Your task to perform on an android device: snooze an email in the gmail app Image 0: 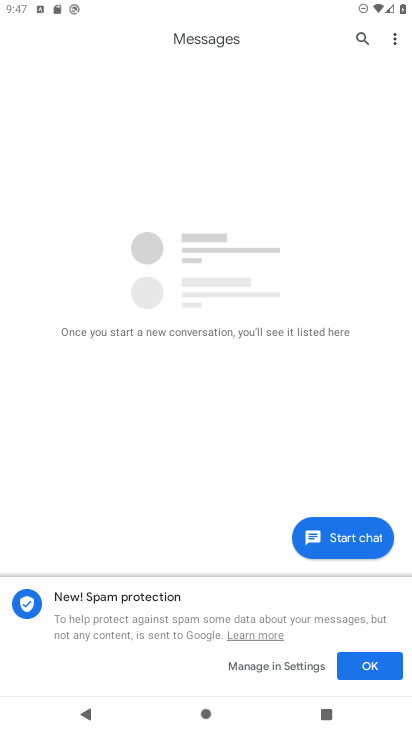
Step 0: press home button
Your task to perform on an android device: snooze an email in the gmail app Image 1: 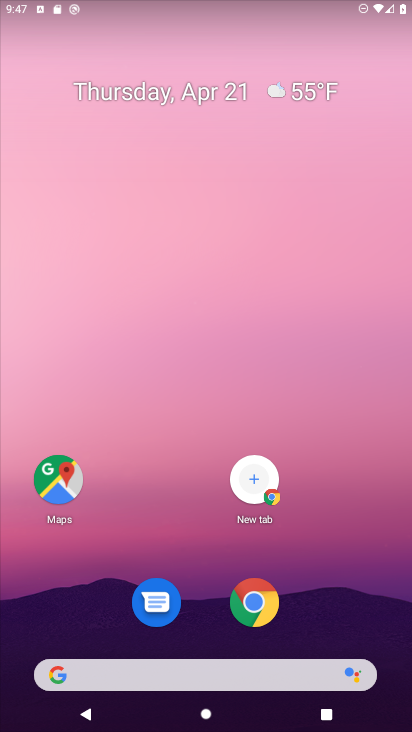
Step 1: drag from (210, 610) to (139, 28)
Your task to perform on an android device: snooze an email in the gmail app Image 2: 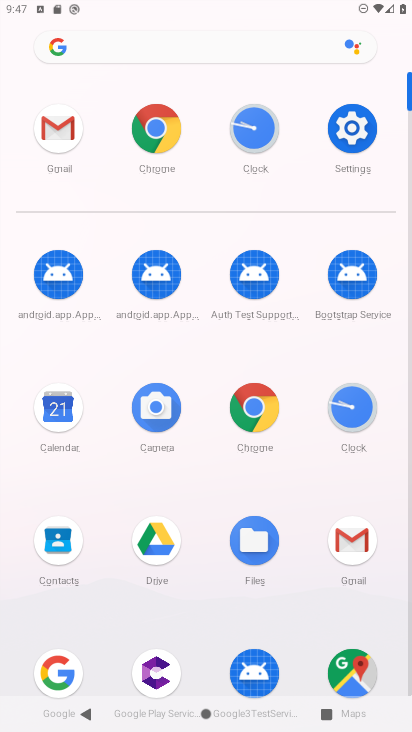
Step 2: click (54, 131)
Your task to perform on an android device: snooze an email in the gmail app Image 3: 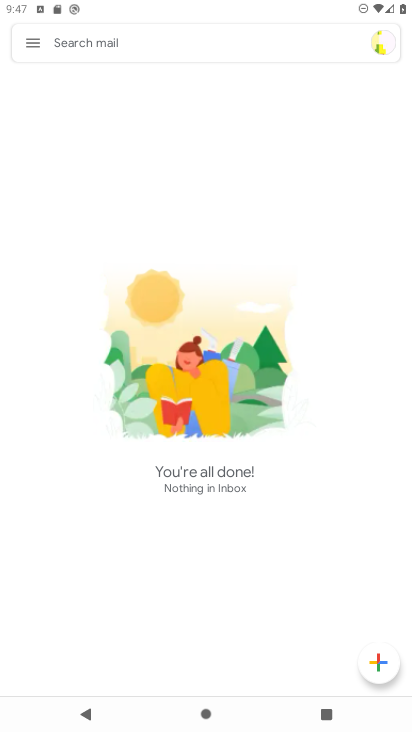
Step 3: task complete